Your task to perform on an android device: Do I have any events today? Image 0: 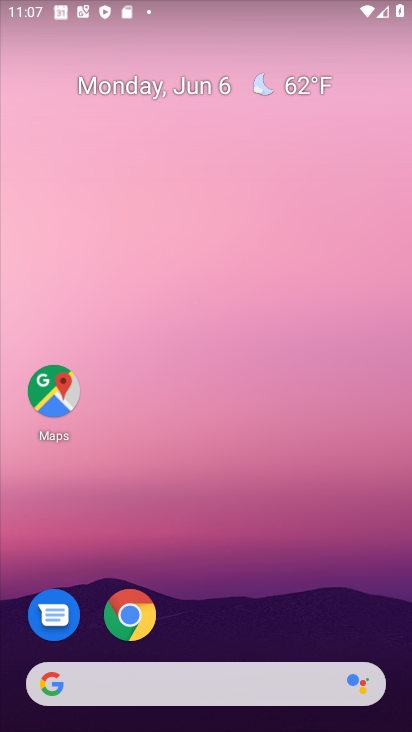
Step 0: drag from (183, 682) to (309, 43)
Your task to perform on an android device: Do I have any events today? Image 1: 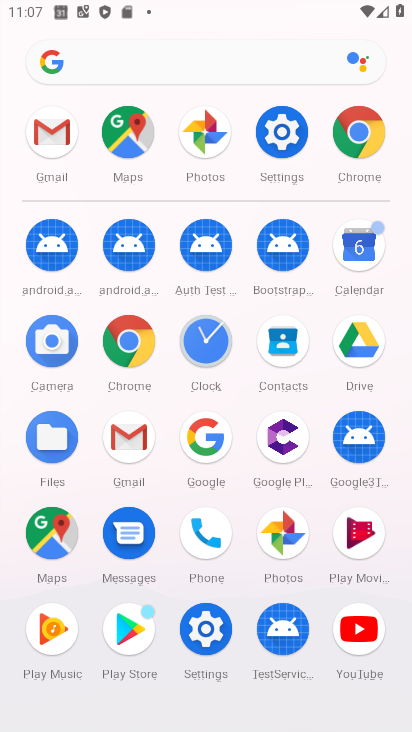
Step 1: click (349, 260)
Your task to perform on an android device: Do I have any events today? Image 2: 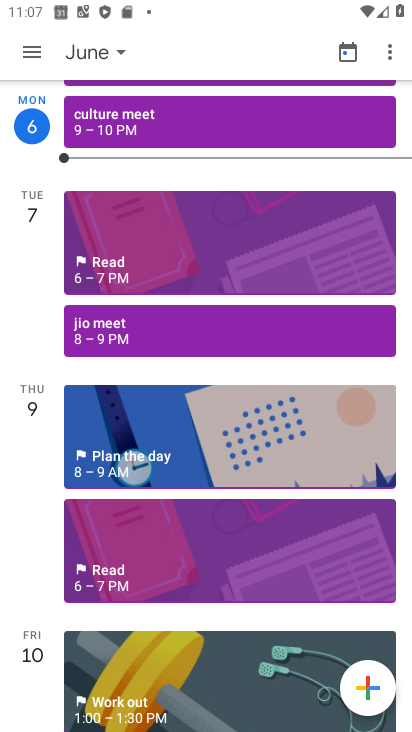
Step 2: task complete